Your task to perform on an android device: show emergency info Image 0: 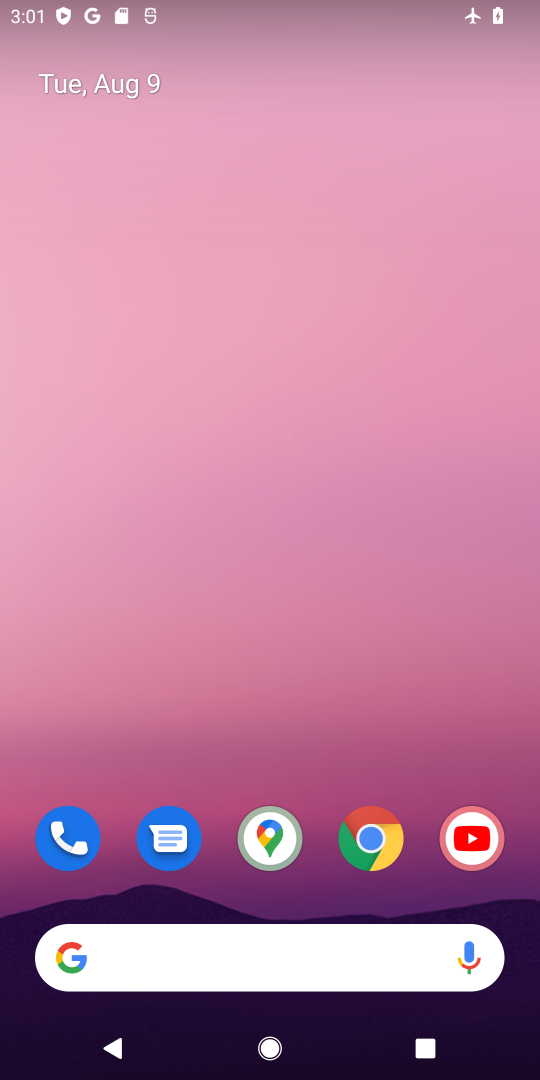
Step 0: drag from (325, 742) to (382, 58)
Your task to perform on an android device: show emergency info Image 1: 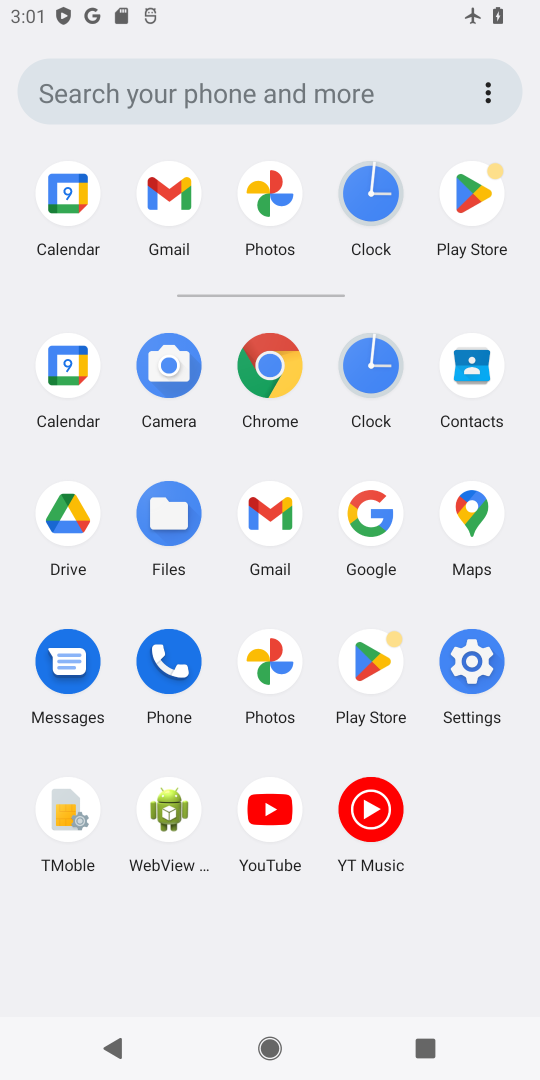
Step 1: click (477, 656)
Your task to perform on an android device: show emergency info Image 2: 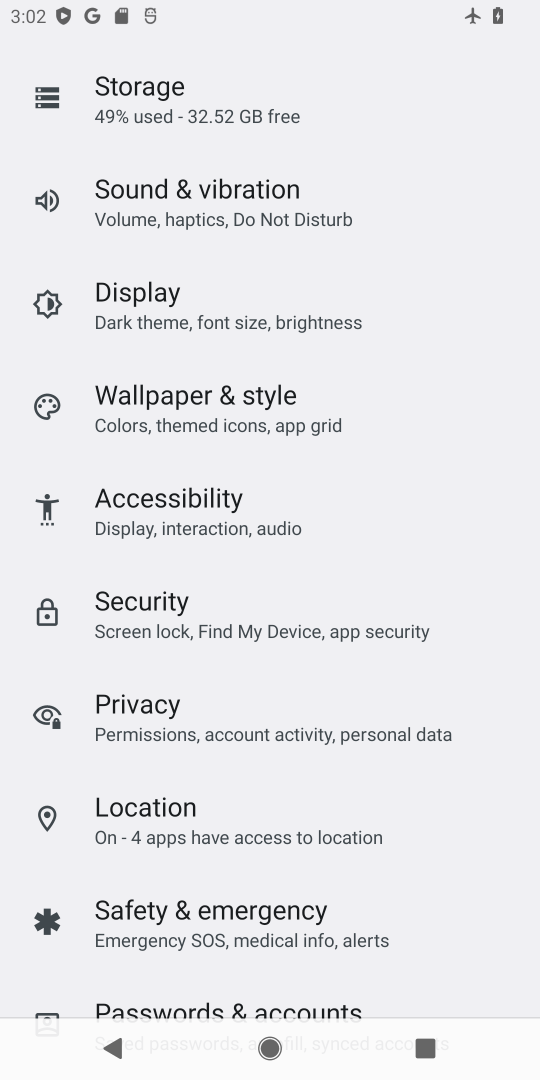
Step 2: drag from (344, 940) to (389, 535)
Your task to perform on an android device: show emergency info Image 3: 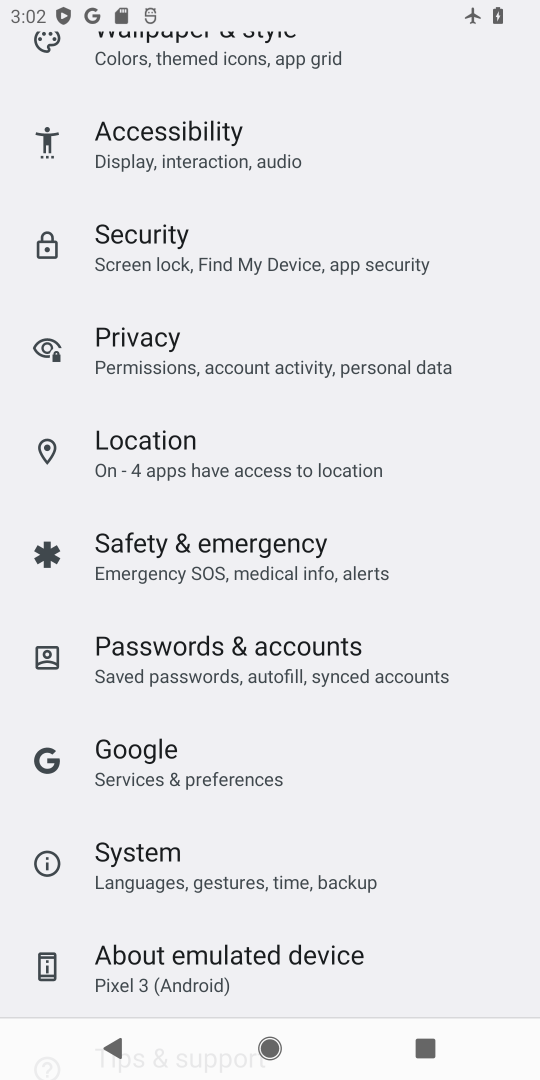
Step 3: click (269, 579)
Your task to perform on an android device: show emergency info Image 4: 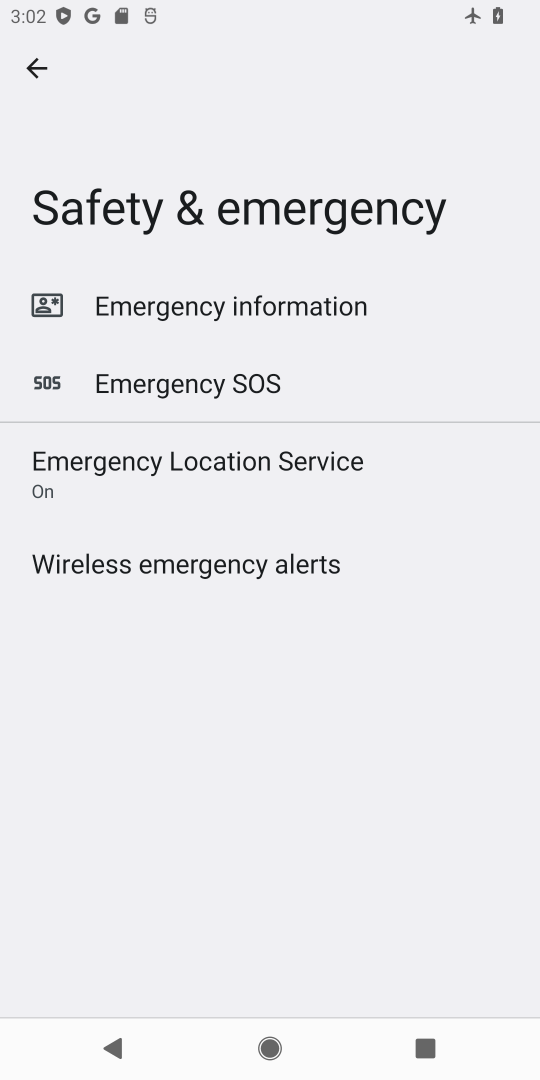
Step 4: click (291, 307)
Your task to perform on an android device: show emergency info Image 5: 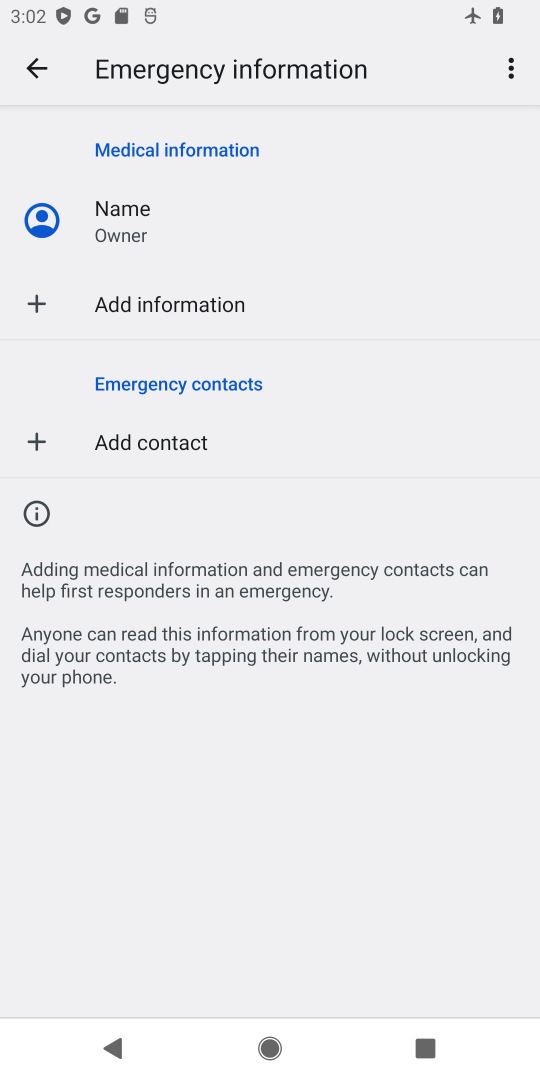
Step 5: task complete